Your task to perform on an android device: Open Amazon Image 0: 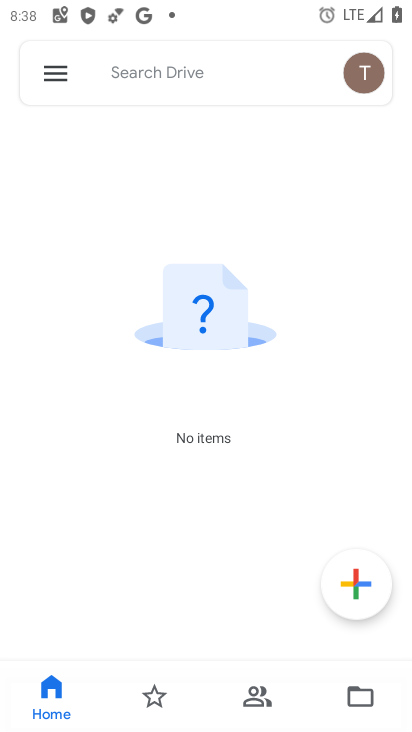
Step 0: press home button
Your task to perform on an android device: Open Amazon Image 1: 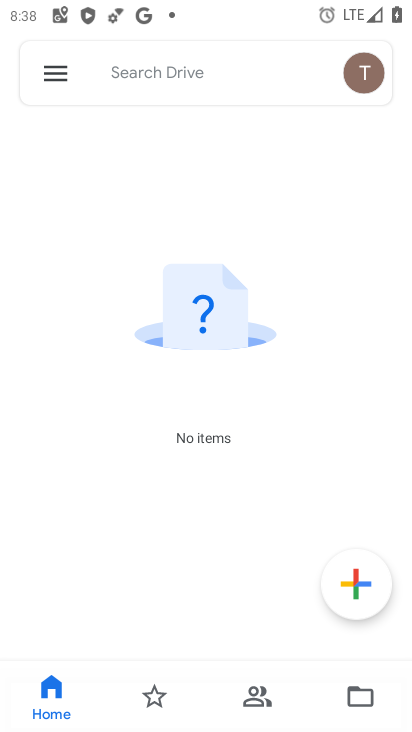
Step 1: press home button
Your task to perform on an android device: Open Amazon Image 2: 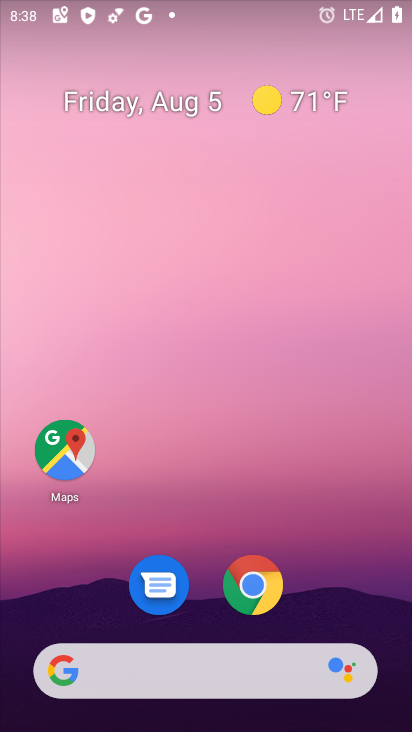
Step 2: click (261, 588)
Your task to perform on an android device: Open Amazon Image 3: 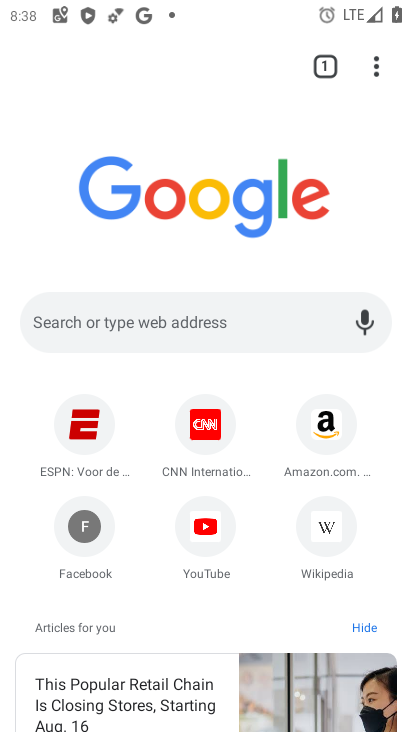
Step 3: click (317, 438)
Your task to perform on an android device: Open Amazon Image 4: 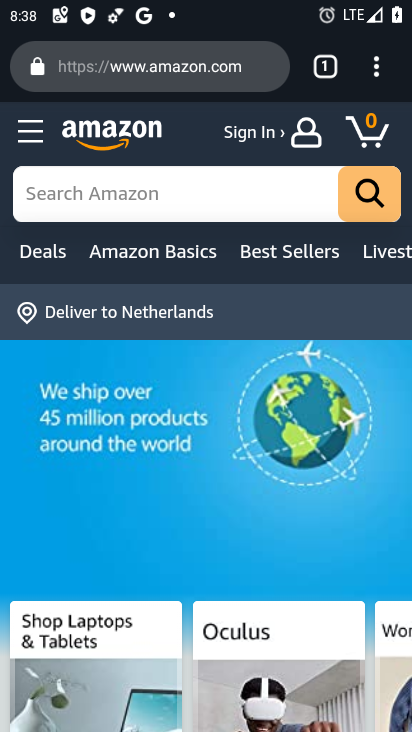
Step 4: task complete